Your task to perform on an android device: allow notifications from all sites in the chrome app Image 0: 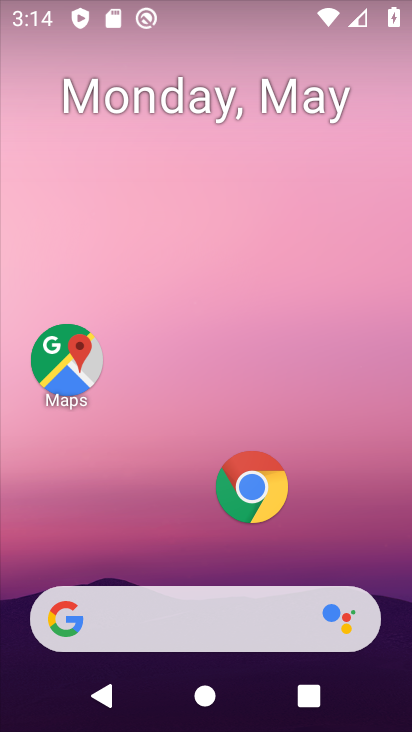
Step 0: click (261, 491)
Your task to perform on an android device: allow notifications from all sites in the chrome app Image 1: 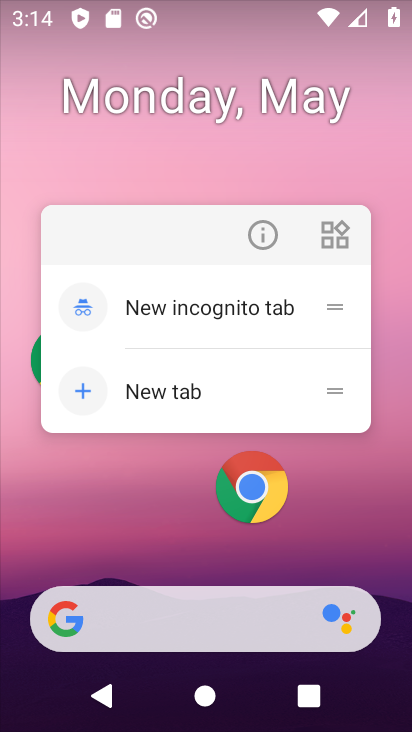
Step 1: click (257, 484)
Your task to perform on an android device: allow notifications from all sites in the chrome app Image 2: 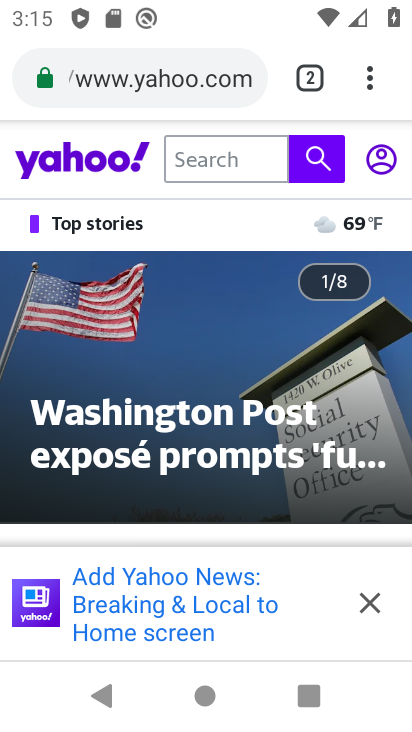
Step 2: click (370, 87)
Your task to perform on an android device: allow notifications from all sites in the chrome app Image 3: 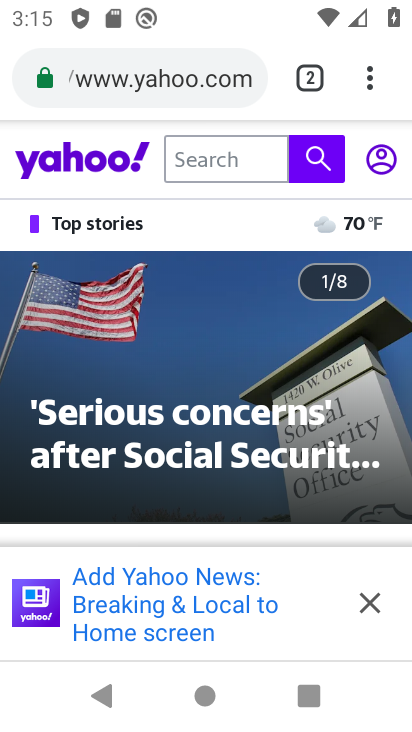
Step 3: click (373, 82)
Your task to perform on an android device: allow notifications from all sites in the chrome app Image 4: 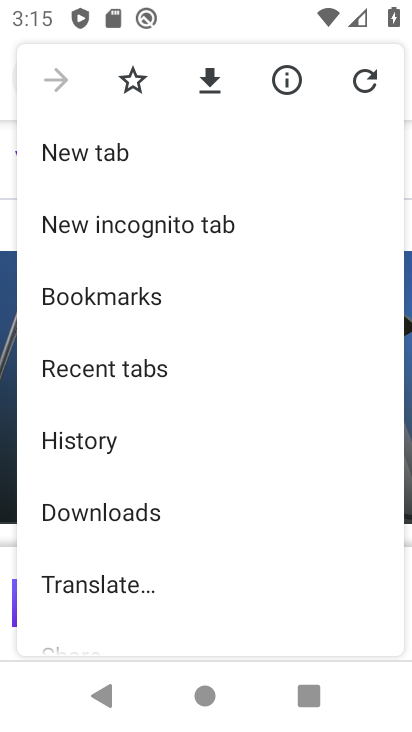
Step 4: drag from (144, 581) to (144, 278)
Your task to perform on an android device: allow notifications from all sites in the chrome app Image 5: 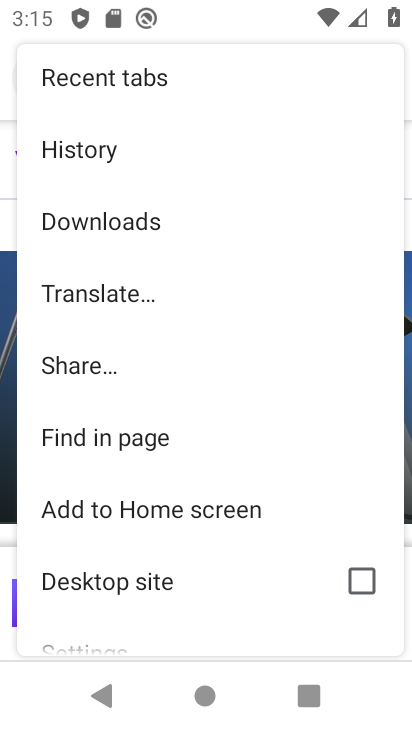
Step 5: drag from (115, 609) to (119, 281)
Your task to perform on an android device: allow notifications from all sites in the chrome app Image 6: 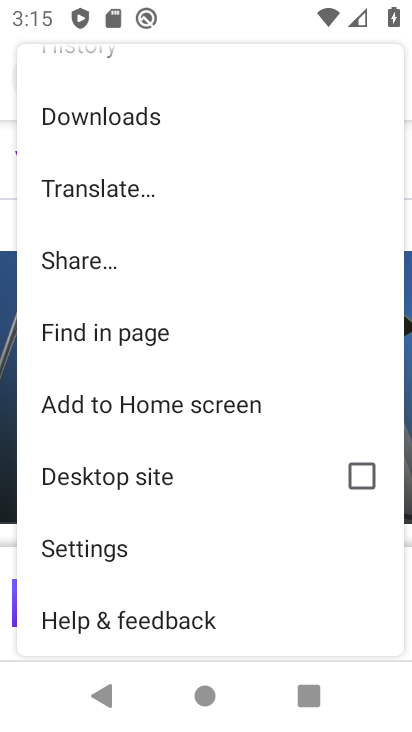
Step 6: click (100, 554)
Your task to perform on an android device: allow notifications from all sites in the chrome app Image 7: 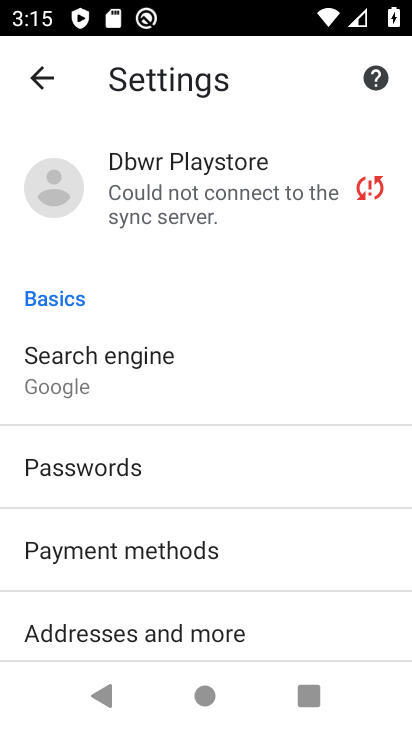
Step 7: drag from (117, 624) to (94, 265)
Your task to perform on an android device: allow notifications from all sites in the chrome app Image 8: 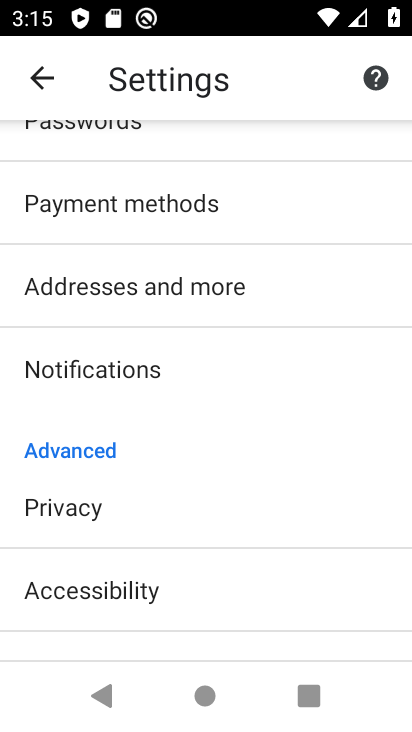
Step 8: drag from (119, 572) to (94, 185)
Your task to perform on an android device: allow notifications from all sites in the chrome app Image 9: 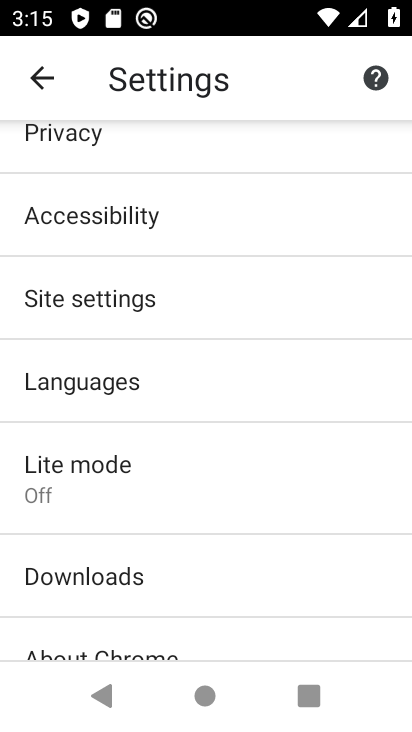
Step 9: drag from (117, 565) to (107, 229)
Your task to perform on an android device: allow notifications from all sites in the chrome app Image 10: 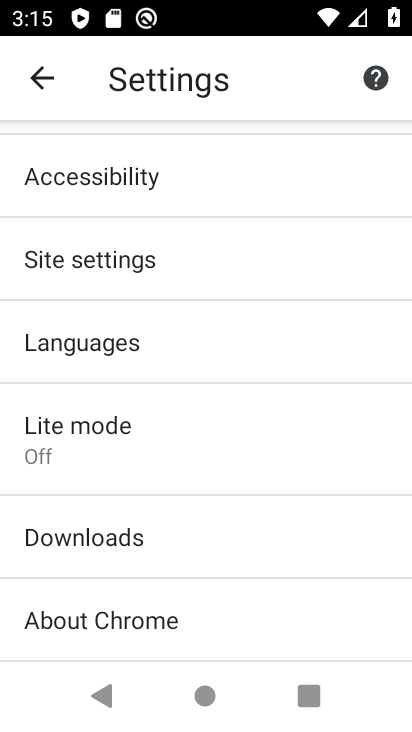
Step 10: click (85, 272)
Your task to perform on an android device: allow notifications from all sites in the chrome app Image 11: 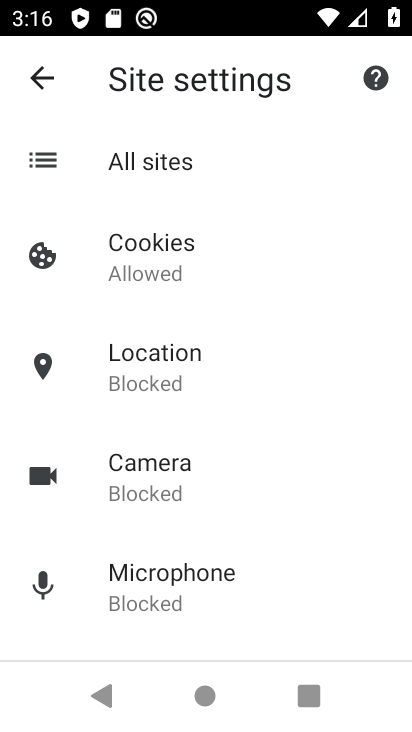
Step 11: drag from (188, 592) to (147, 143)
Your task to perform on an android device: allow notifications from all sites in the chrome app Image 12: 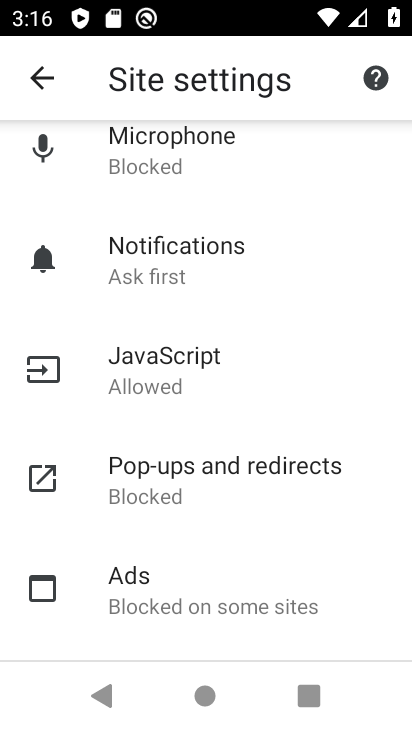
Step 12: click (222, 556)
Your task to perform on an android device: allow notifications from all sites in the chrome app Image 13: 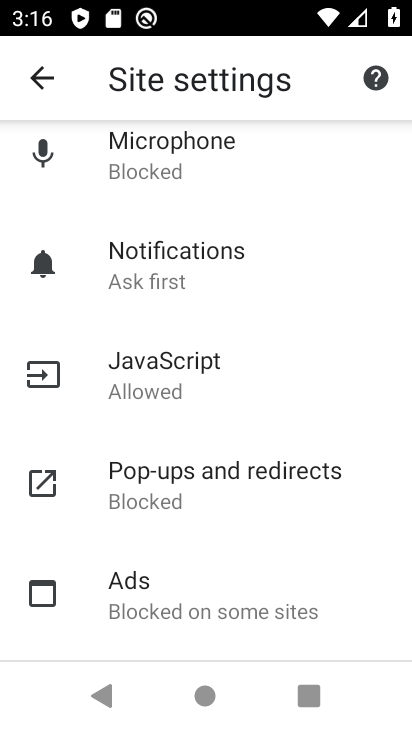
Step 13: click (144, 273)
Your task to perform on an android device: allow notifications from all sites in the chrome app Image 14: 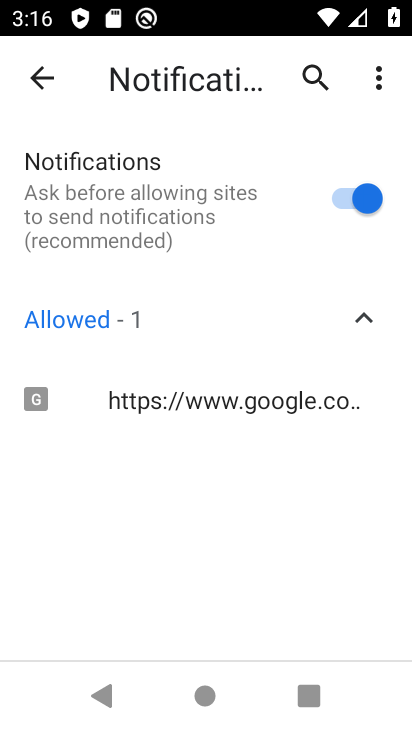
Step 14: task complete